Your task to perform on an android device: turn off translation in the chrome app Image 0: 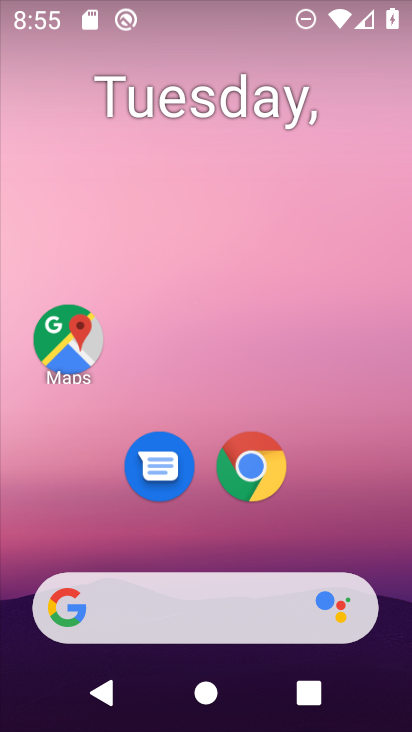
Step 0: click (260, 475)
Your task to perform on an android device: turn off translation in the chrome app Image 1: 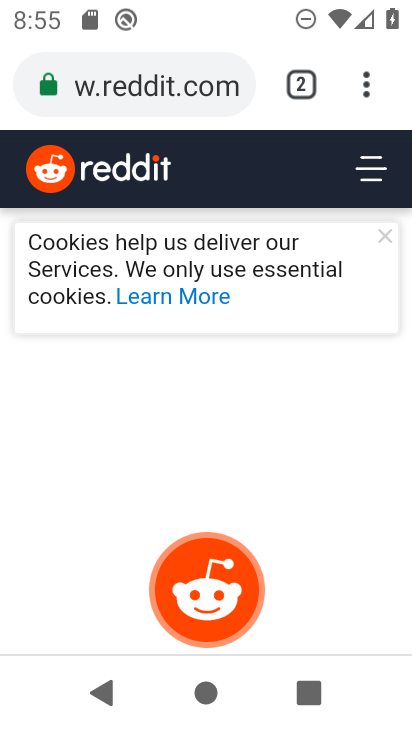
Step 1: click (363, 81)
Your task to perform on an android device: turn off translation in the chrome app Image 2: 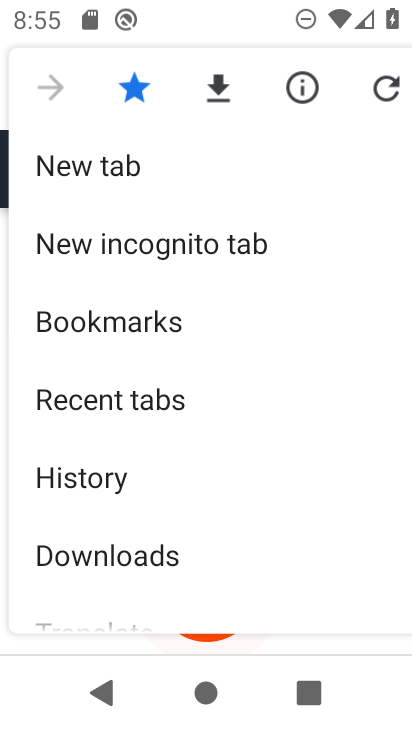
Step 2: drag from (104, 541) to (145, 193)
Your task to perform on an android device: turn off translation in the chrome app Image 3: 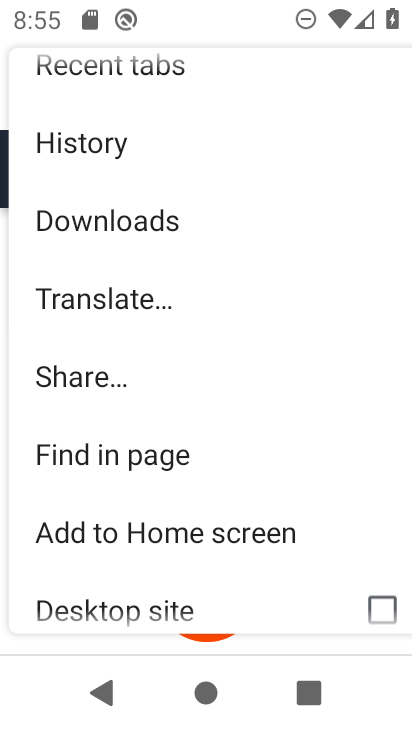
Step 3: drag from (154, 487) to (196, 295)
Your task to perform on an android device: turn off translation in the chrome app Image 4: 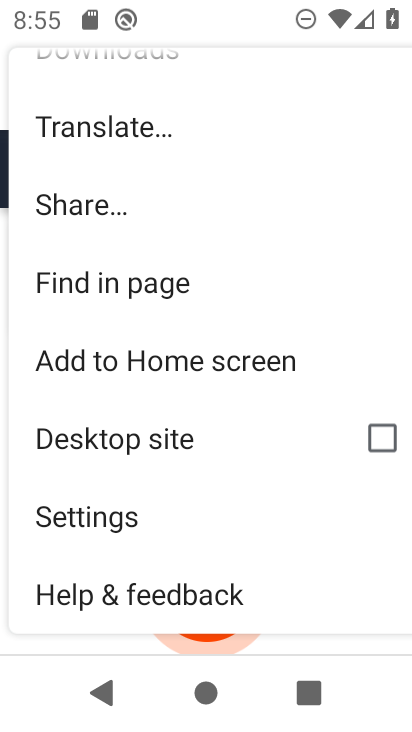
Step 4: click (143, 525)
Your task to perform on an android device: turn off translation in the chrome app Image 5: 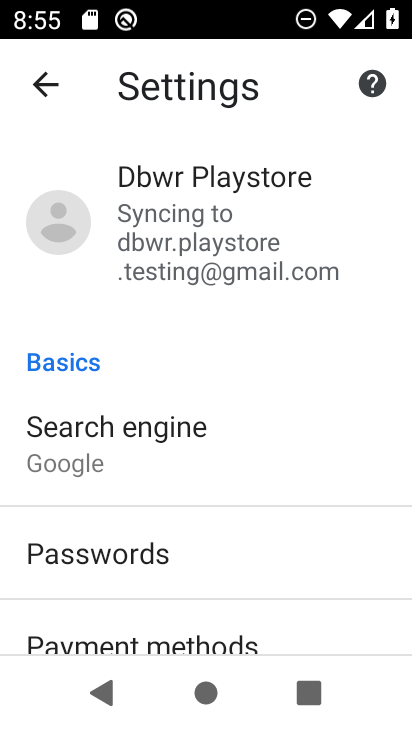
Step 5: drag from (214, 592) to (246, 382)
Your task to perform on an android device: turn off translation in the chrome app Image 6: 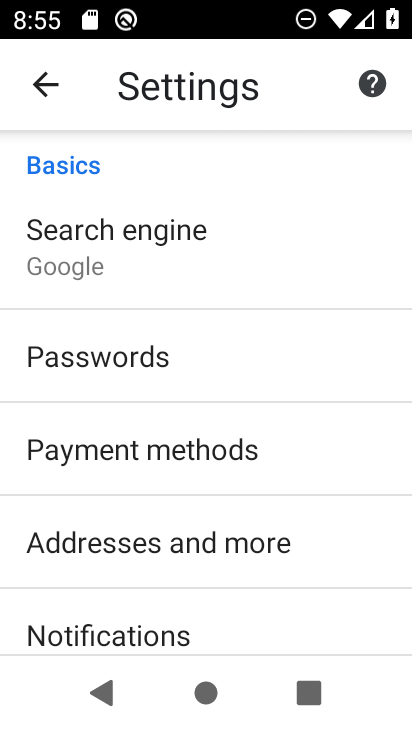
Step 6: drag from (183, 609) to (243, 5)
Your task to perform on an android device: turn off translation in the chrome app Image 7: 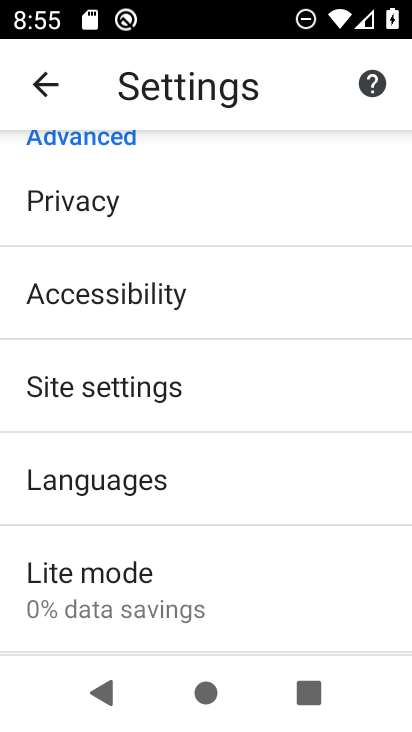
Step 7: drag from (144, 532) to (195, 160)
Your task to perform on an android device: turn off translation in the chrome app Image 8: 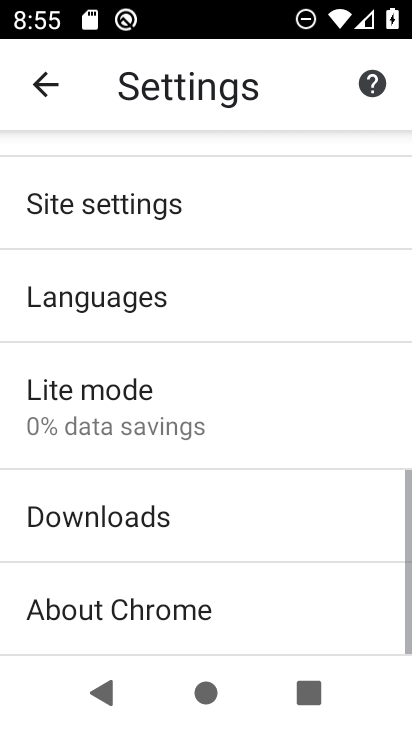
Step 8: drag from (137, 533) to (167, 166)
Your task to perform on an android device: turn off translation in the chrome app Image 9: 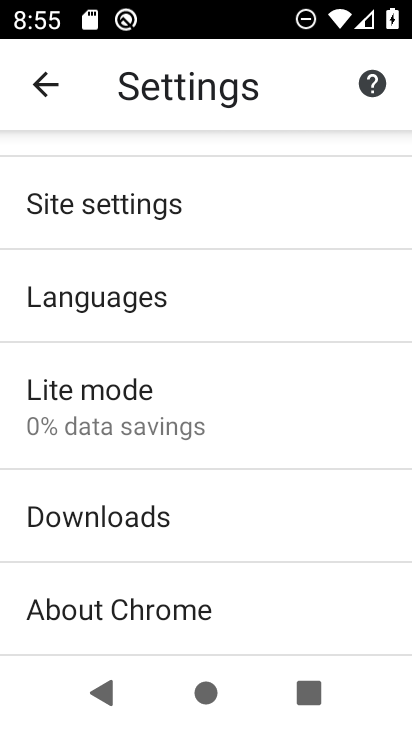
Step 9: click (143, 278)
Your task to perform on an android device: turn off translation in the chrome app Image 10: 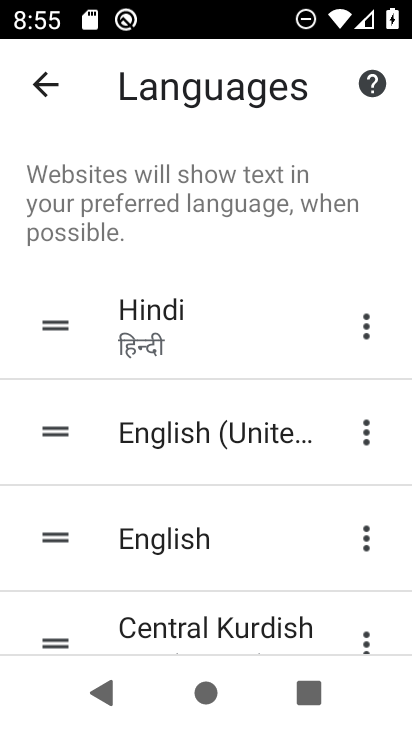
Step 10: task complete